Your task to perform on an android device: turn on improve location accuracy Image 0: 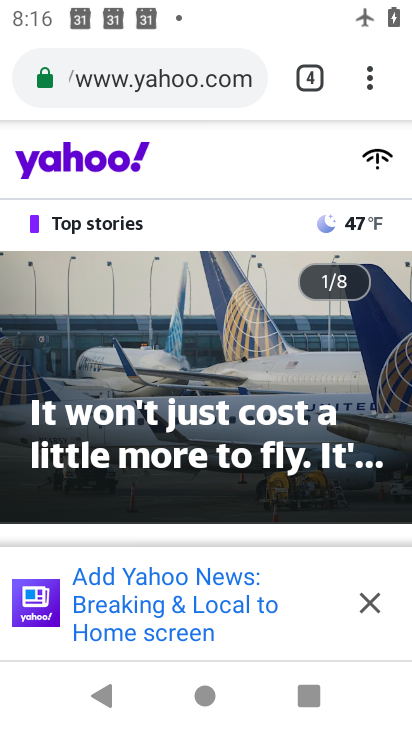
Step 0: press home button
Your task to perform on an android device: turn on improve location accuracy Image 1: 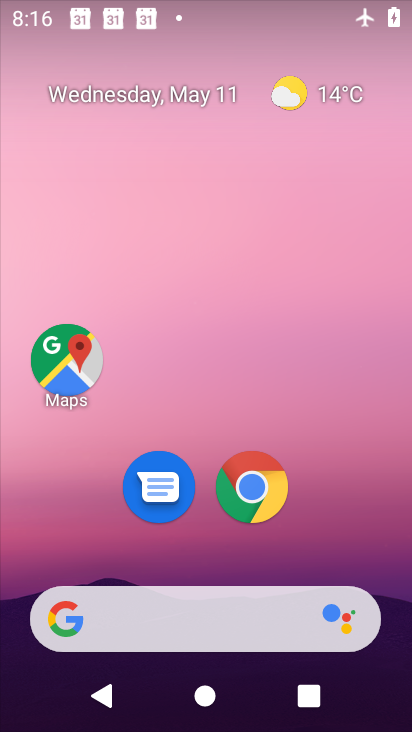
Step 1: drag from (228, 726) to (228, 204)
Your task to perform on an android device: turn on improve location accuracy Image 2: 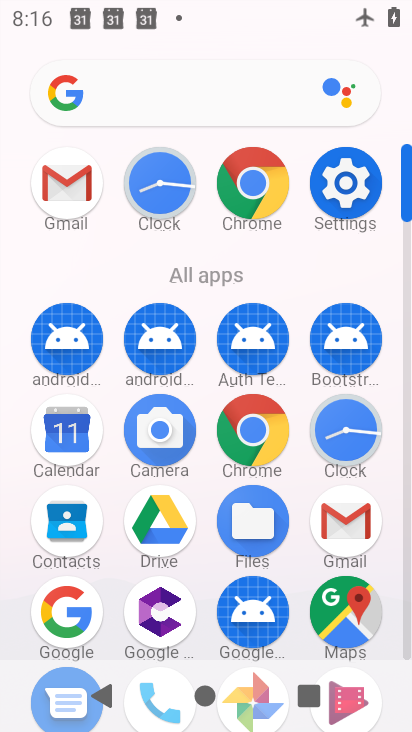
Step 2: click (345, 187)
Your task to perform on an android device: turn on improve location accuracy Image 3: 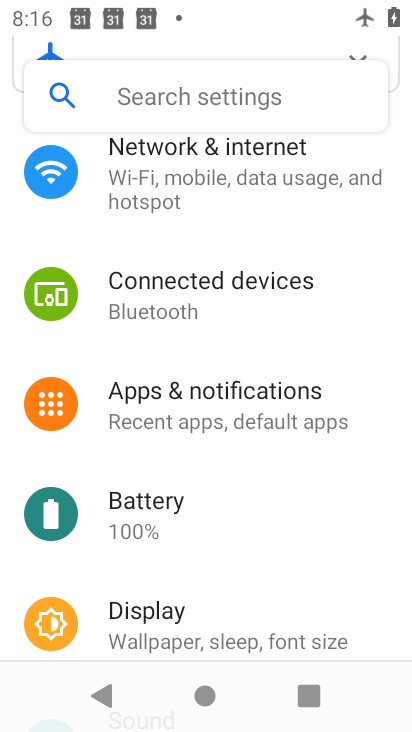
Step 3: drag from (184, 562) to (207, 279)
Your task to perform on an android device: turn on improve location accuracy Image 4: 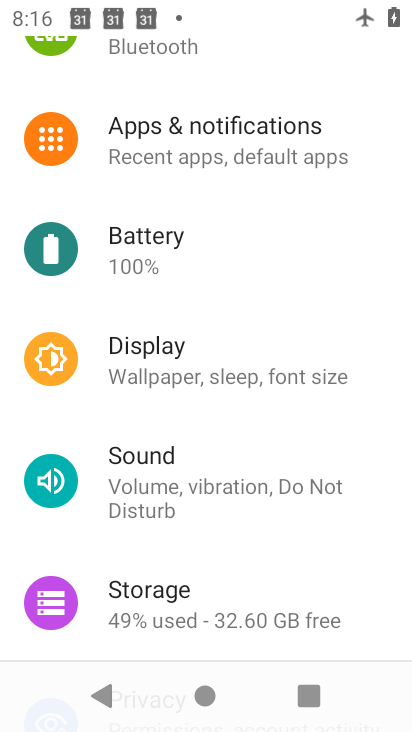
Step 4: drag from (195, 608) to (207, 338)
Your task to perform on an android device: turn on improve location accuracy Image 5: 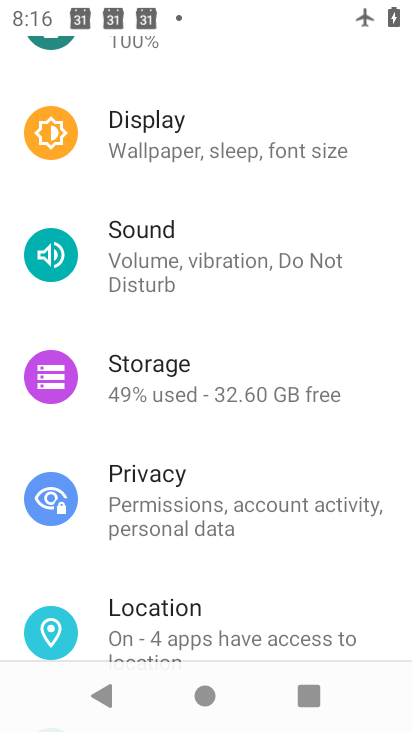
Step 5: click (141, 616)
Your task to perform on an android device: turn on improve location accuracy Image 6: 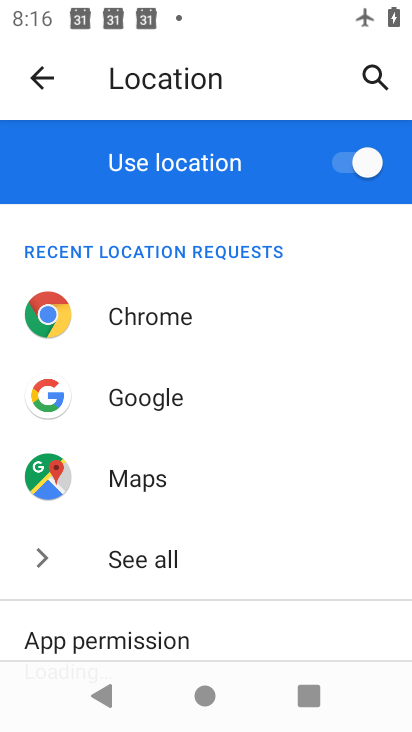
Step 6: drag from (146, 632) to (170, 343)
Your task to perform on an android device: turn on improve location accuracy Image 7: 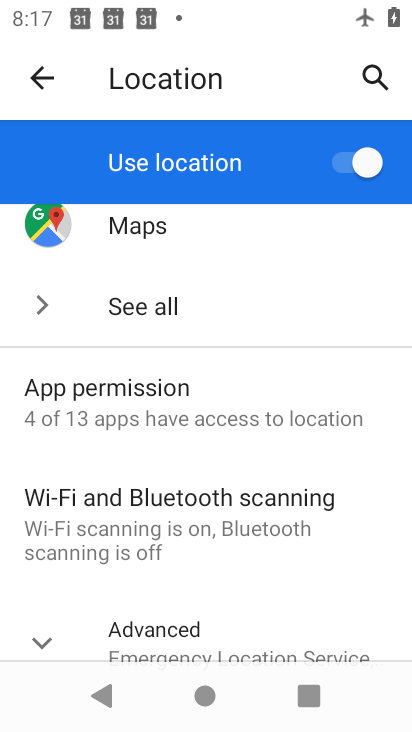
Step 7: drag from (232, 627) to (268, 433)
Your task to perform on an android device: turn on improve location accuracy Image 8: 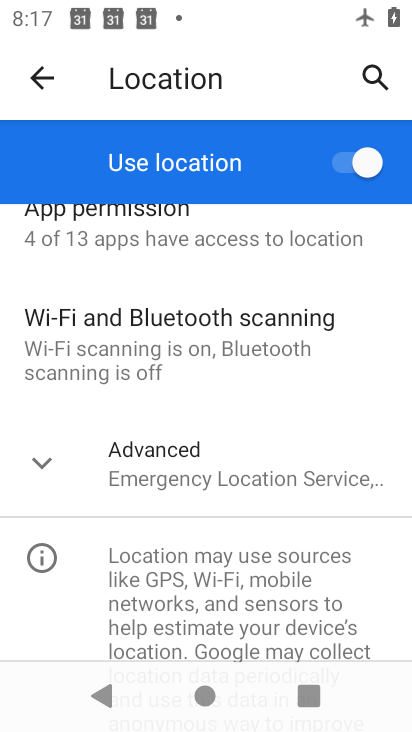
Step 8: click (180, 471)
Your task to perform on an android device: turn on improve location accuracy Image 9: 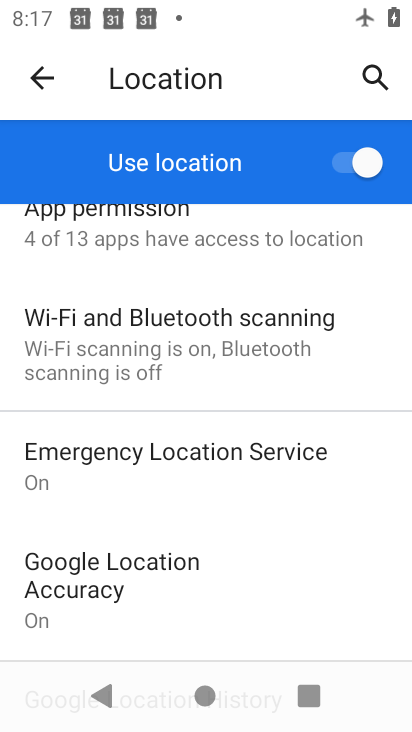
Step 9: drag from (162, 615) to (180, 521)
Your task to perform on an android device: turn on improve location accuracy Image 10: 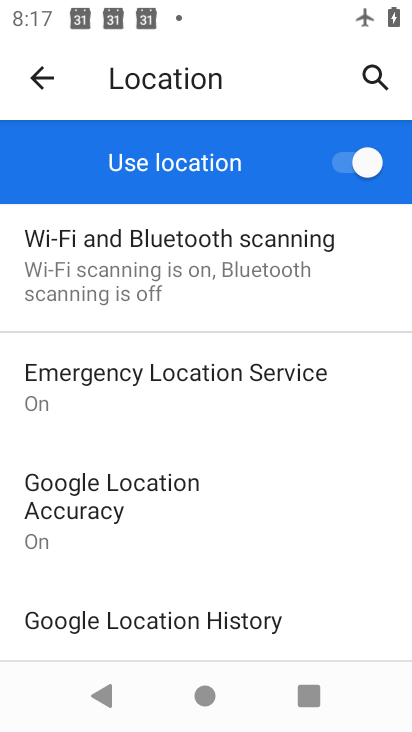
Step 10: click (106, 498)
Your task to perform on an android device: turn on improve location accuracy Image 11: 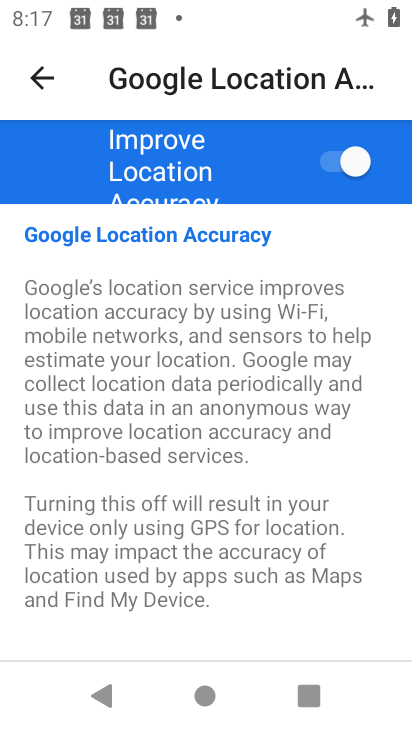
Step 11: task complete